Your task to perform on an android device: Search for "razer blackwidow" on bestbuy.com, select the first entry, add it to the cart, then select checkout. Image 0: 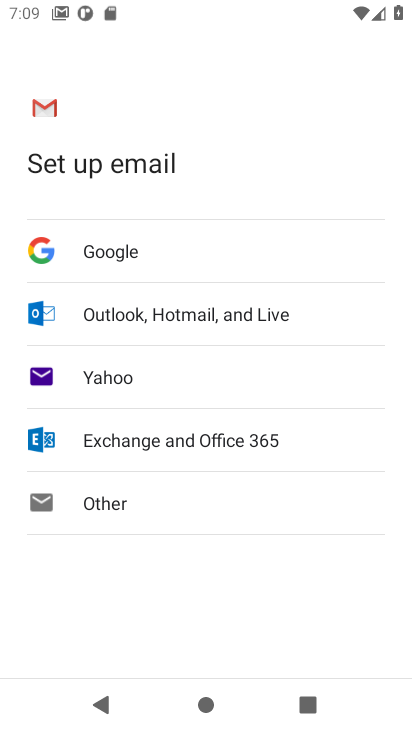
Step 0: press home button
Your task to perform on an android device: Search for "razer blackwidow" on bestbuy.com, select the first entry, add it to the cart, then select checkout. Image 1: 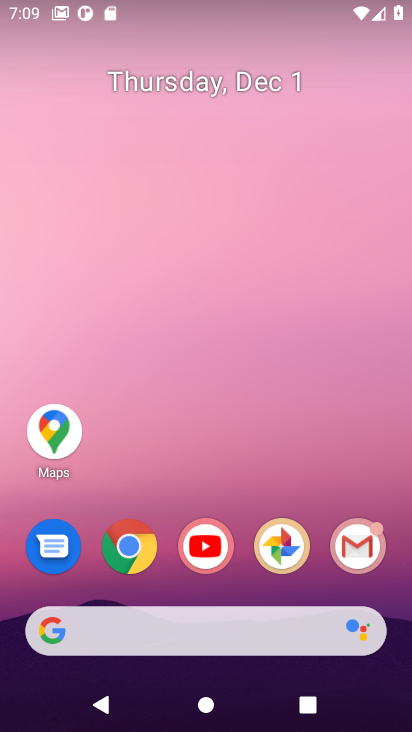
Step 1: click (126, 555)
Your task to perform on an android device: Search for "razer blackwidow" on bestbuy.com, select the first entry, add it to the cart, then select checkout. Image 2: 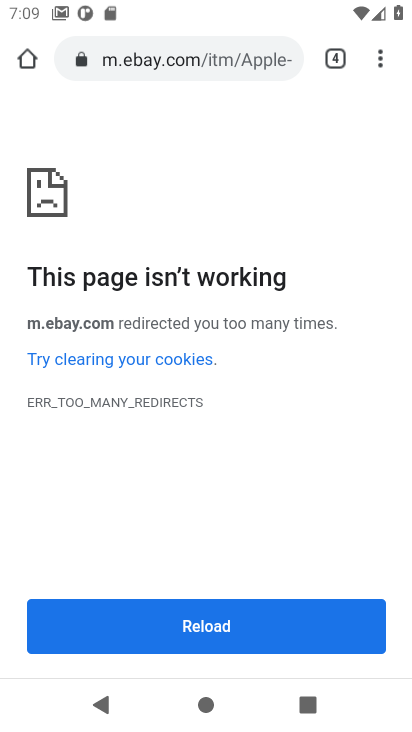
Step 2: click (141, 62)
Your task to perform on an android device: Search for "razer blackwidow" on bestbuy.com, select the first entry, add it to the cart, then select checkout. Image 3: 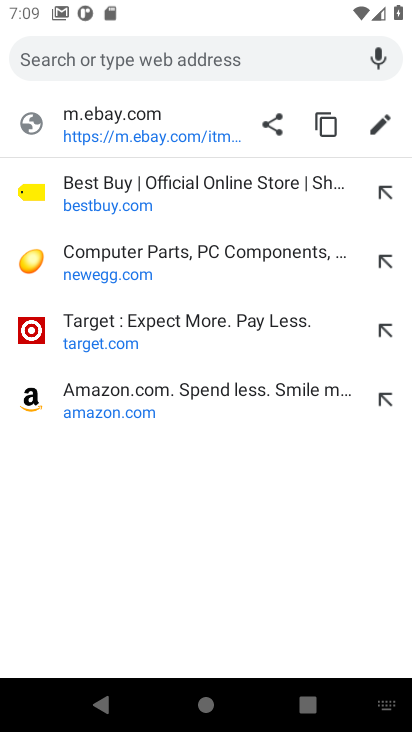
Step 3: click (101, 205)
Your task to perform on an android device: Search for "razer blackwidow" on bestbuy.com, select the first entry, add it to the cart, then select checkout. Image 4: 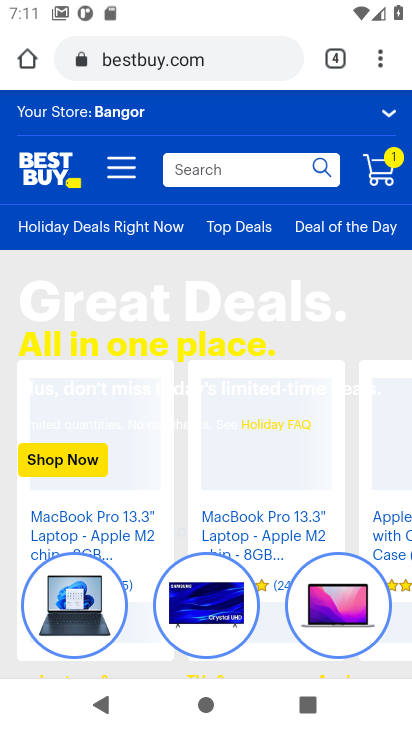
Step 4: click (195, 175)
Your task to perform on an android device: Search for "razer blackwidow" on bestbuy.com, select the first entry, add it to the cart, then select checkout. Image 5: 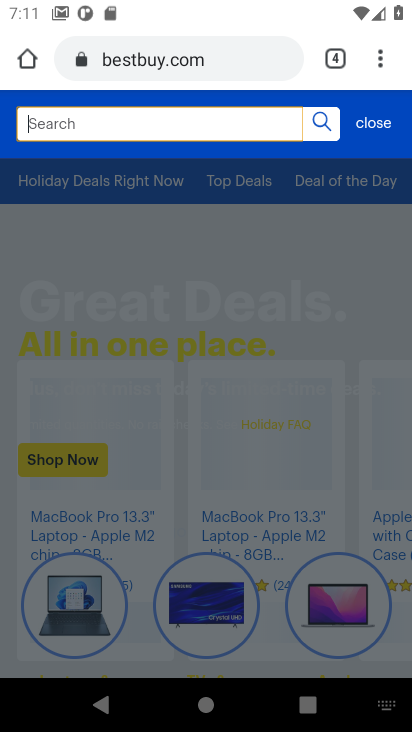
Step 5: type "razer blackwidow"
Your task to perform on an android device: Search for "razer blackwidow" on bestbuy.com, select the first entry, add it to the cart, then select checkout. Image 6: 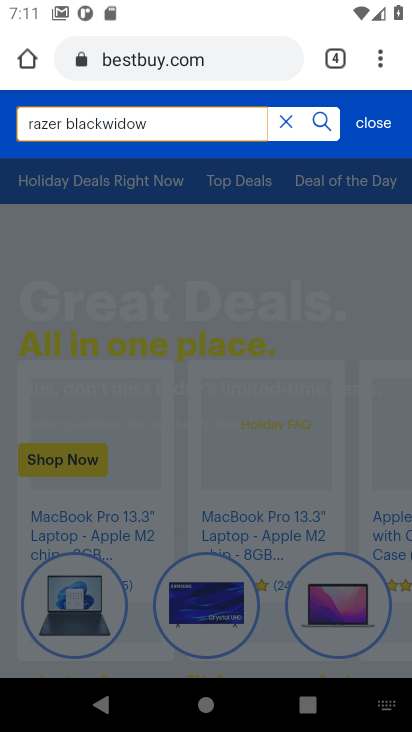
Step 6: click (318, 121)
Your task to perform on an android device: Search for "razer blackwidow" on bestbuy.com, select the first entry, add it to the cart, then select checkout. Image 7: 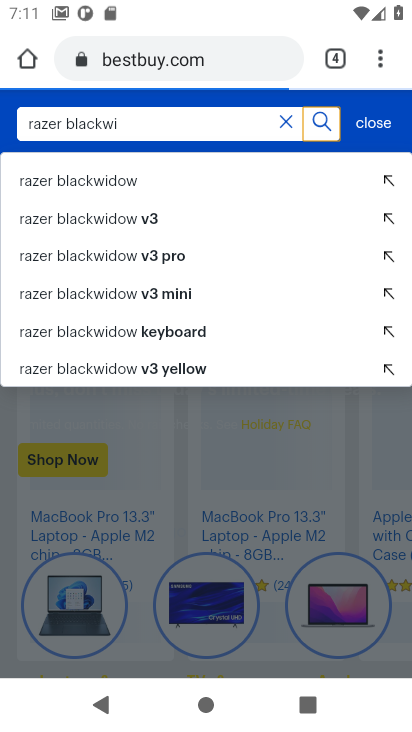
Step 7: click (73, 187)
Your task to perform on an android device: Search for "razer blackwidow" on bestbuy.com, select the first entry, add it to the cart, then select checkout. Image 8: 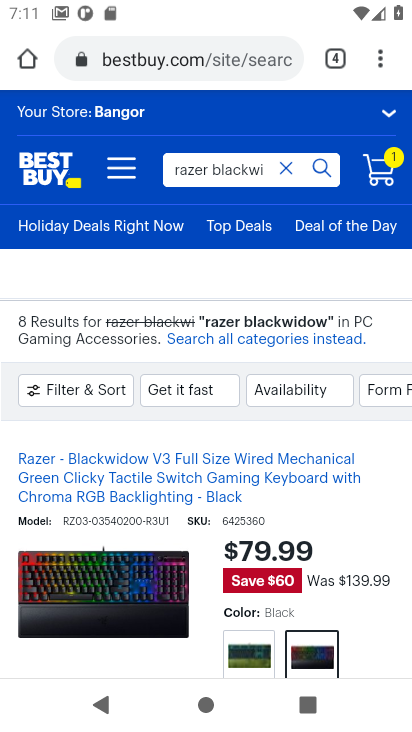
Step 8: click (117, 473)
Your task to perform on an android device: Search for "razer blackwidow" on bestbuy.com, select the first entry, add it to the cart, then select checkout. Image 9: 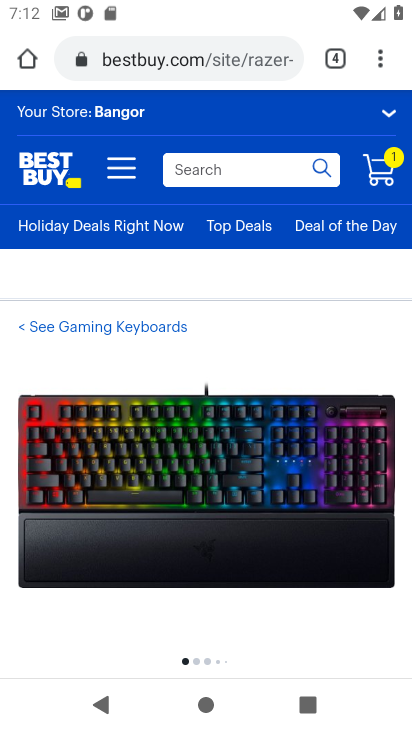
Step 9: drag from (117, 473) to (145, 227)
Your task to perform on an android device: Search for "razer blackwidow" on bestbuy.com, select the first entry, add it to the cart, then select checkout. Image 10: 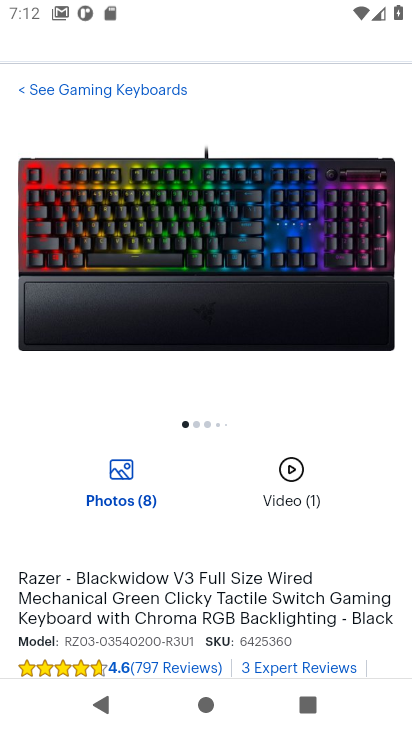
Step 10: drag from (177, 510) to (170, 308)
Your task to perform on an android device: Search for "razer blackwidow" on bestbuy.com, select the first entry, add it to the cart, then select checkout. Image 11: 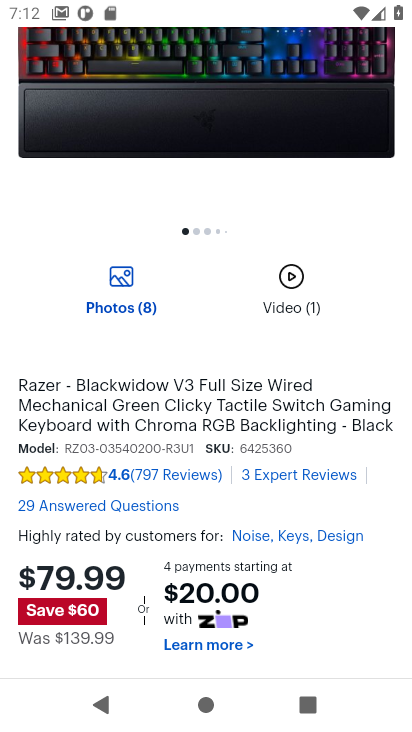
Step 11: drag from (193, 493) to (176, 226)
Your task to perform on an android device: Search for "razer blackwidow" on bestbuy.com, select the first entry, add it to the cart, then select checkout. Image 12: 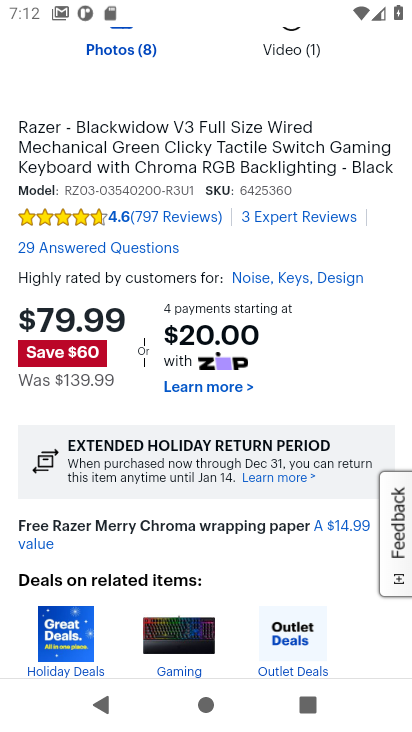
Step 12: drag from (186, 490) to (187, 276)
Your task to perform on an android device: Search for "razer blackwidow" on bestbuy.com, select the first entry, add it to the cart, then select checkout. Image 13: 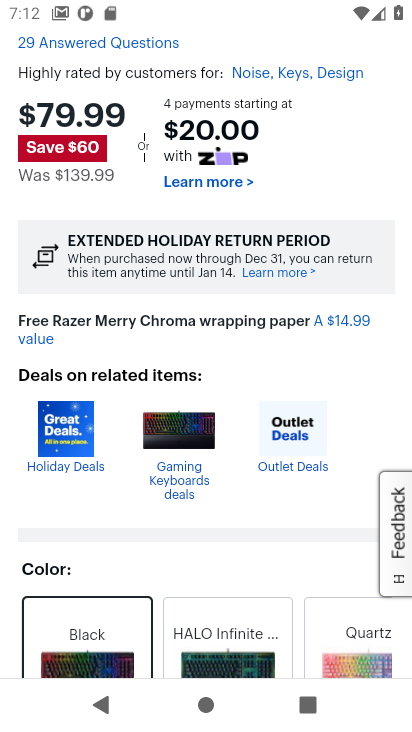
Step 13: drag from (213, 537) to (162, 262)
Your task to perform on an android device: Search for "razer blackwidow" on bestbuy.com, select the first entry, add it to the cart, then select checkout. Image 14: 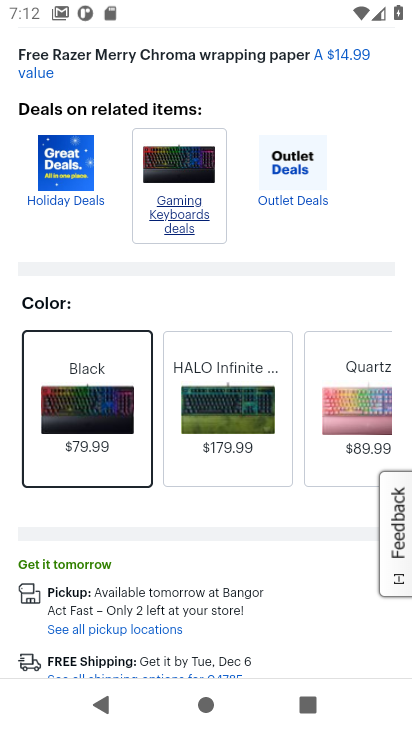
Step 14: drag from (173, 543) to (149, 230)
Your task to perform on an android device: Search for "razer blackwidow" on bestbuy.com, select the first entry, add it to the cart, then select checkout. Image 15: 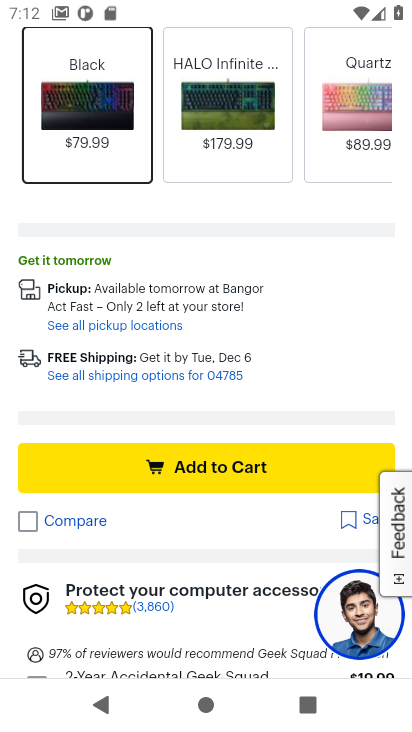
Step 15: click (177, 467)
Your task to perform on an android device: Search for "razer blackwidow" on bestbuy.com, select the first entry, add it to the cart, then select checkout. Image 16: 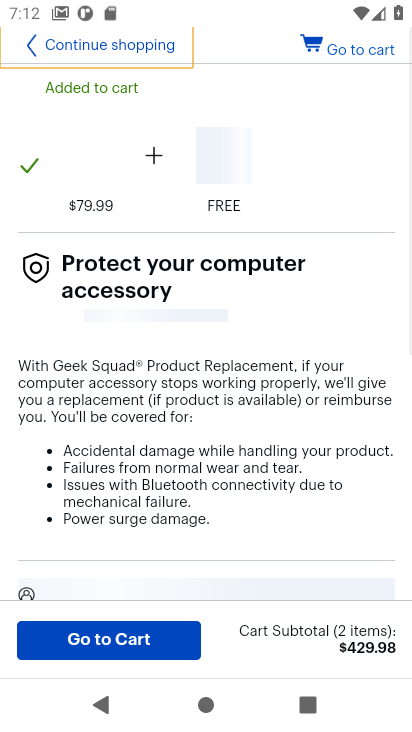
Step 16: click (329, 71)
Your task to perform on an android device: Search for "razer blackwidow" on bestbuy.com, select the first entry, add it to the cart, then select checkout. Image 17: 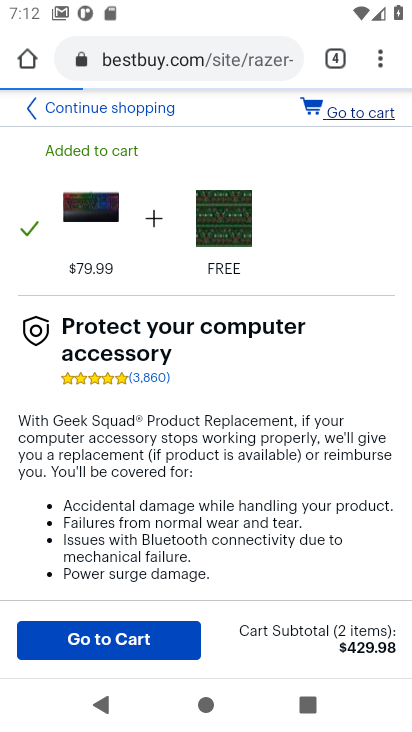
Step 17: drag from (216, 522) to (216, 223)
Your task to perform on an android device: Search for "razer blackwidow" on bestbuy.com, select the first entry, add it to the cart, then select checkout. Image 18: 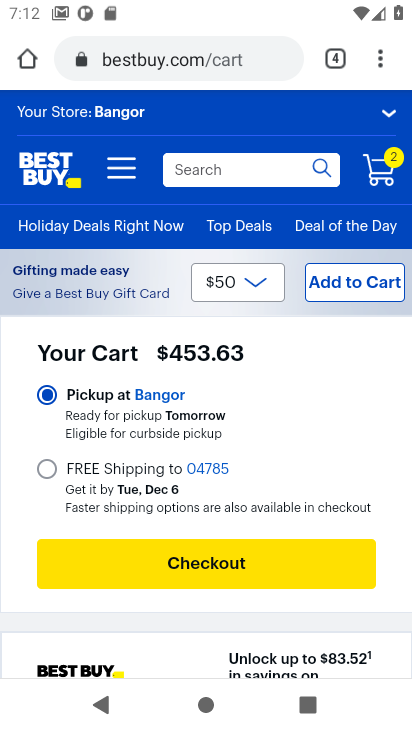
Step 18: click (229, 550)
Your task to perform on an android device: Search for "razer blackwidow" on bestbuy.com, select the first entry, add it to the cart, then select checkout. Image 19: 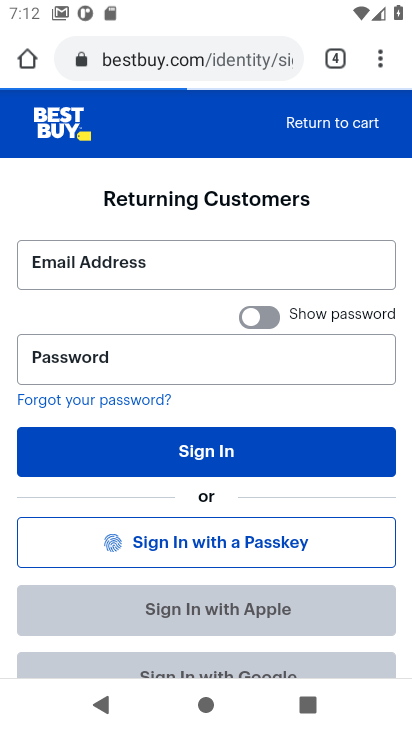
Step 19: task complete